Your task to perform on an android device: Go to privacy settings Image 0: 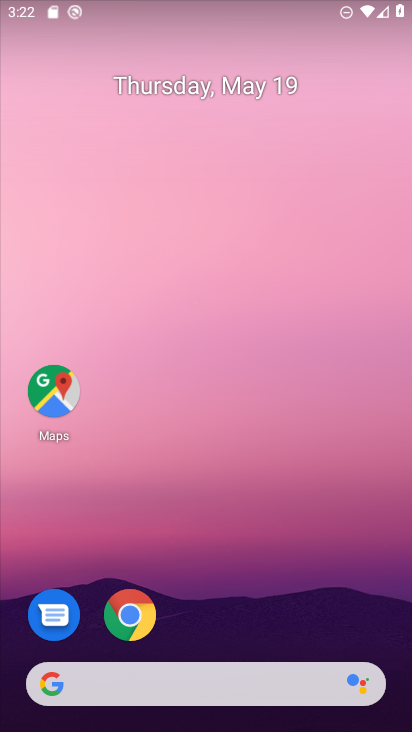
Step 0: drag from (275, 625) to (183, 218)
Your task to perform on an android device: Go to privacy settings Image 1: 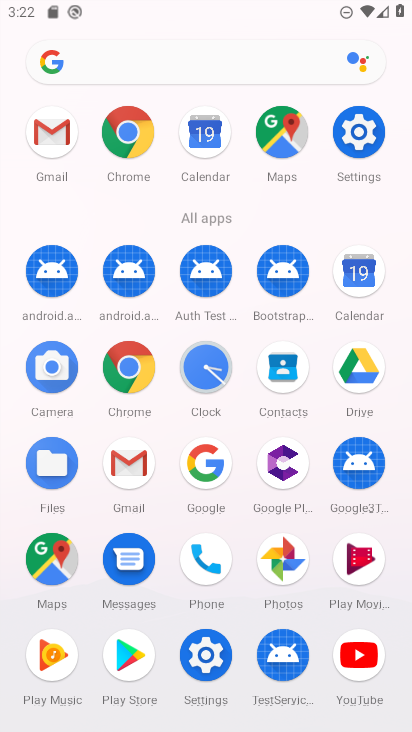
Step 1: click (380, 128)
Your task to perform on an android device: Go to privacy settings Image 2: 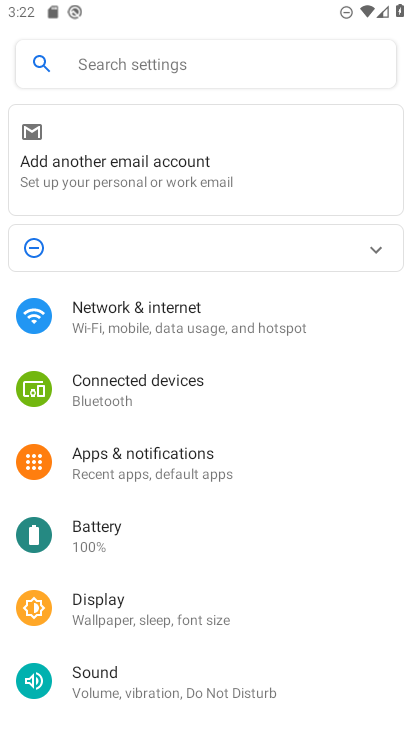
Step 2: drag from (316, 661) to (224, 121)
Your task to perform on an android device: Go to privacy settings Image 3: 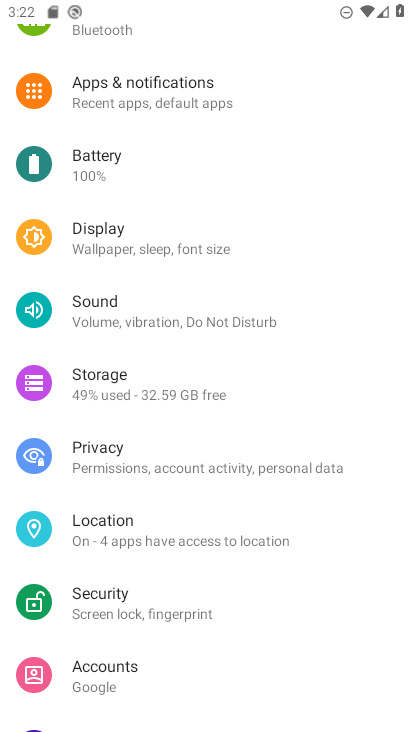
Step 3: click (208, 445)
Your task to perform on an android device: Go to privacy settings Image 4: 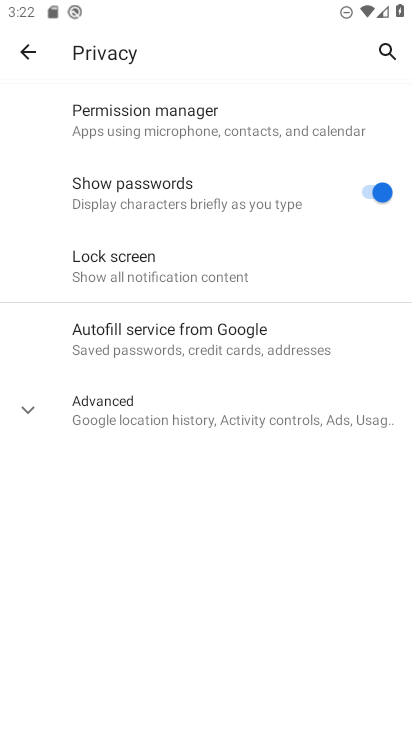
Step 4: task complete